Your task to perform on an android device: Open Google Chrome and click the shortcut for Amazon.com Image 0: 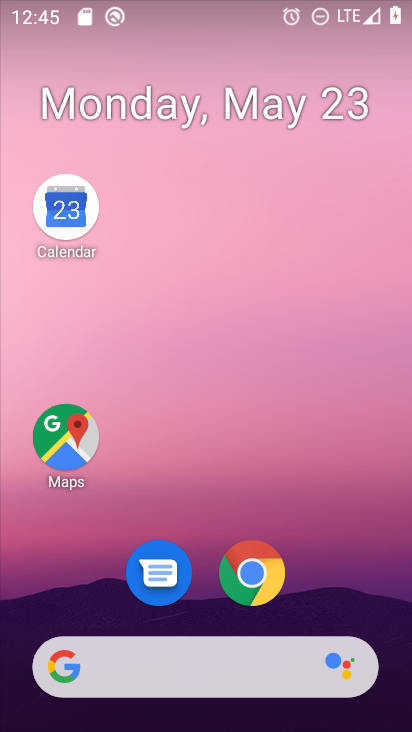
Step 0: click (250, 572)
Your task to perform on an android device: Open Google Chrome and click the shortcut for Amazon.com Image 1: 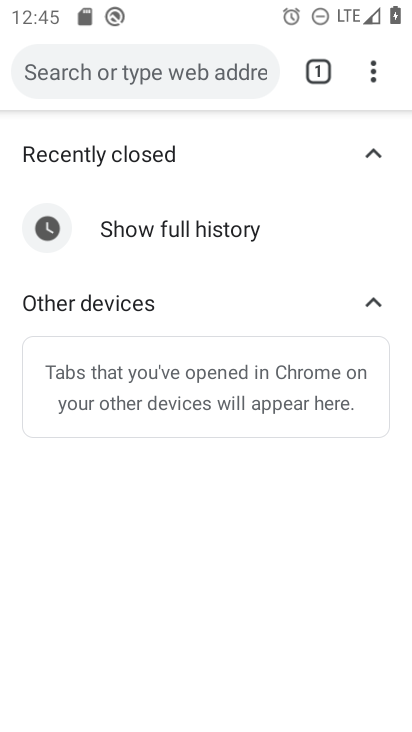
Step 1: click (378, 70)
Your task to perform on an android device: Open Google Chrome and click the shortcut for Amazon.com Image 2: 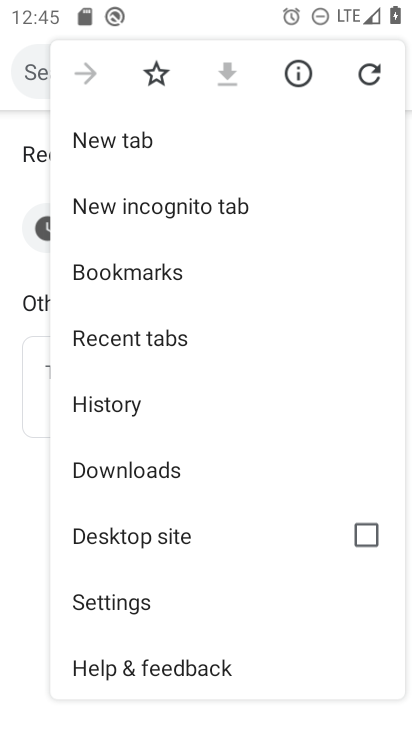
Step 2: click (149, 147)
Your task to perform on an android device: Open Google Chrome and click the shortcut for Amazon.com Image 3: 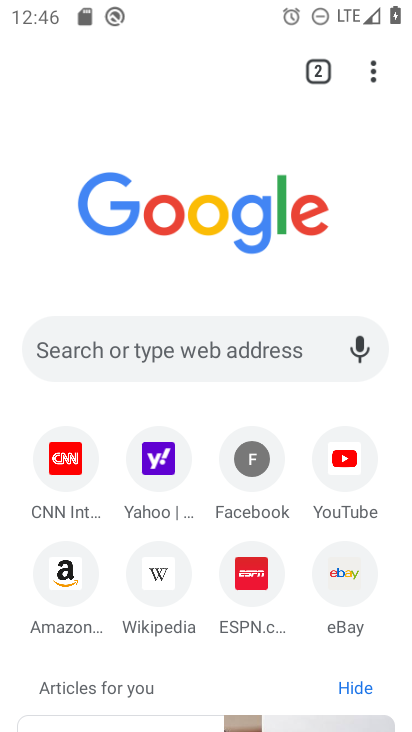
Step 3: click (53, 583)
Your task to perform on an android device: Open Google Chrome and click the shortcut for Amazon.com Image 4: 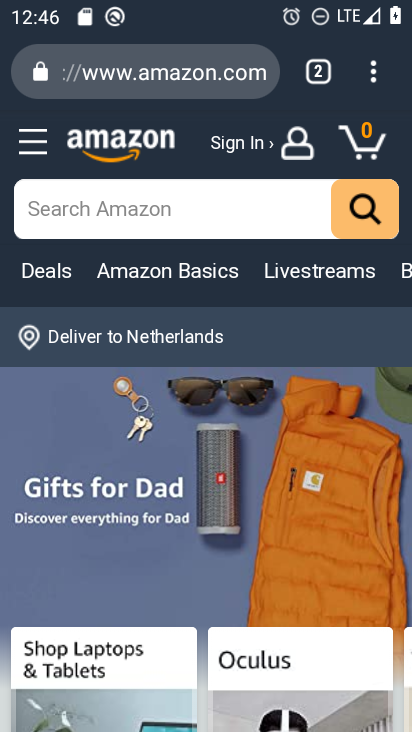
Step 4: task complete